Your task to perform on an android device: toggle pop-ups in chrome Image 0: 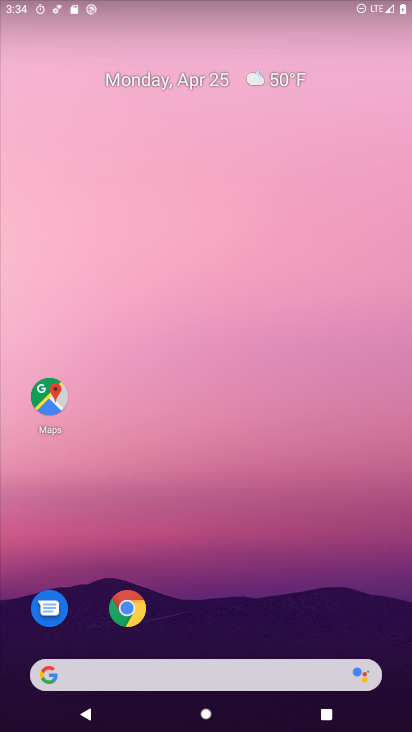
Step 0: click (139, 609)
Your task to perform on an android device: toggle pop-ups in chrome Image 1: 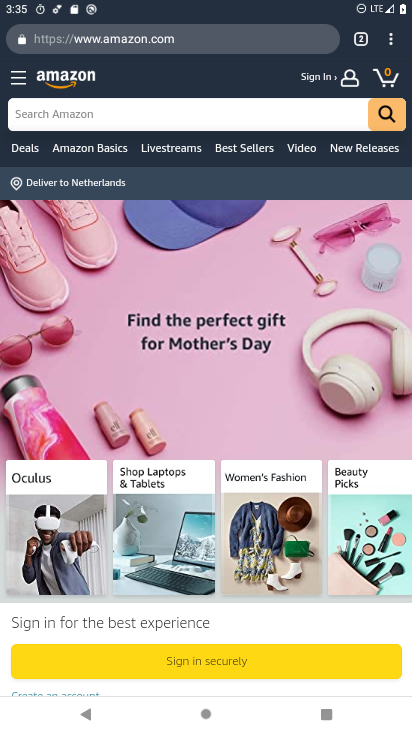
Step 1: drag from (393, 36) to (265, 510)
Your task to perform on an android device: toggle pop-ups in chrome Image 2: 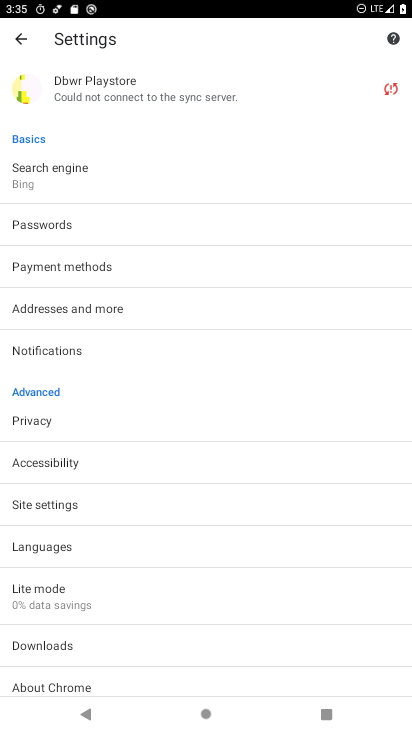
Step 2: click (54, 506)
Your task to perform on an android device: toggle pop-ups in chrome Image 3: 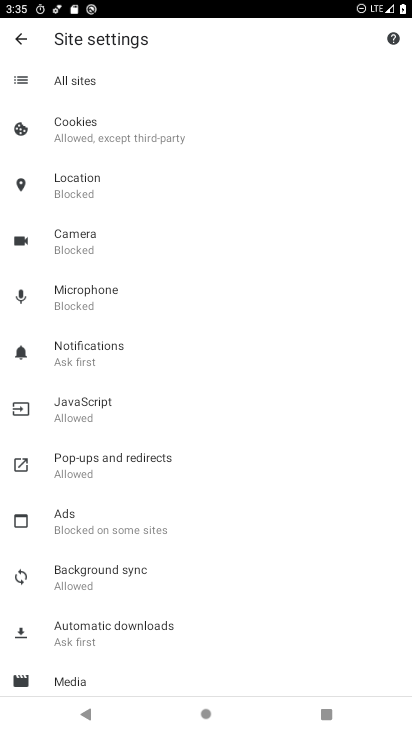
Step 3: drag from (226, 588) to (253, 311)
Your task to perform on an android device: toggle pop-ups in chrome Image 4: 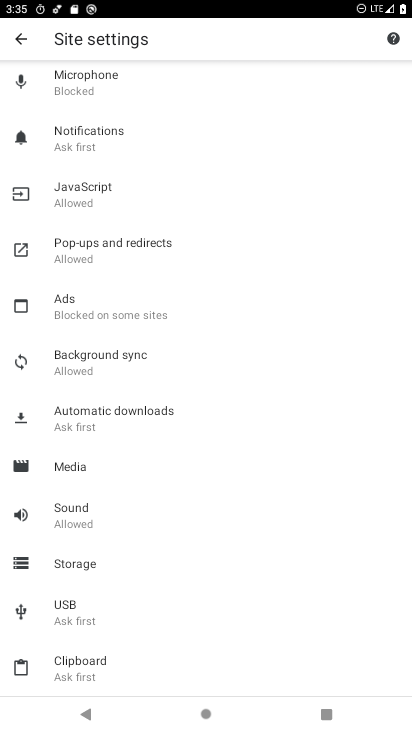
Step 4: drag from (214, 475) to (243, 253)
Your task to perform on an android device: toggle pop-ups in chrome Image 5: 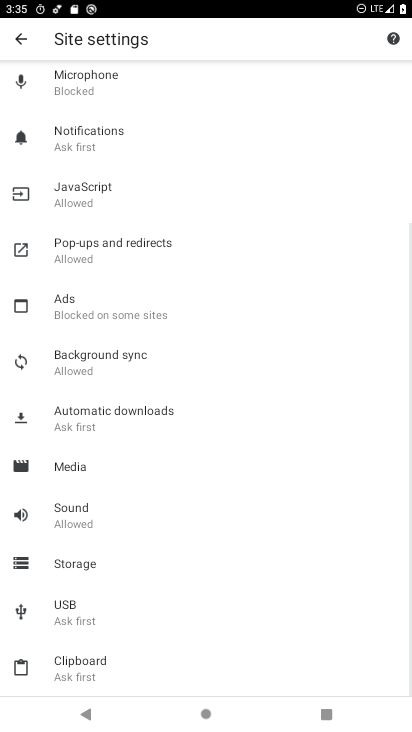
Step 5: click (117, 251)
Your task to perform on an android device: toggle pop-ups in chrome Image 6: 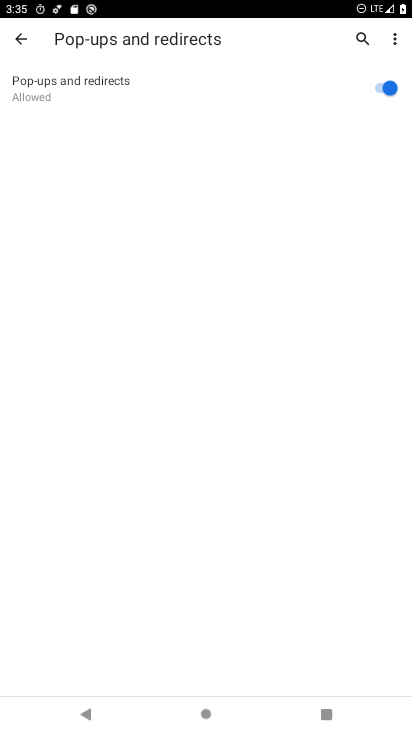
Step 6: click (377, 91)
Your task to perform on an android device: toggle pop-ups in chrome Image 7: 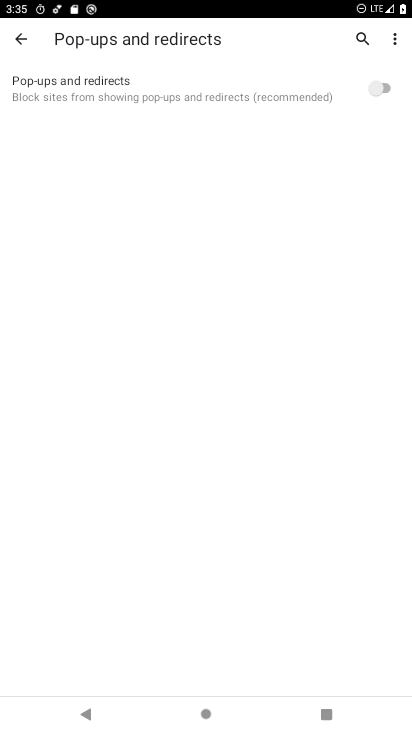
Step 7: task complete